Your task to perform on an android device: turn off notifications in google photos Image 0: 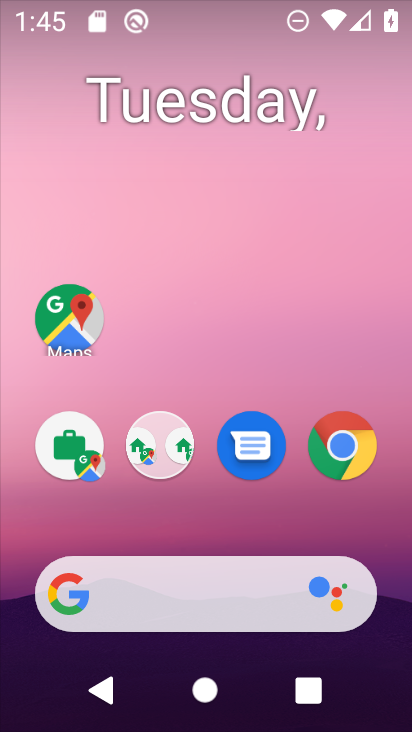
Step 0: drag from (251, 563) to (278, 206)
Your task to perform on an android device: turn off notifications in google photos Image 1: 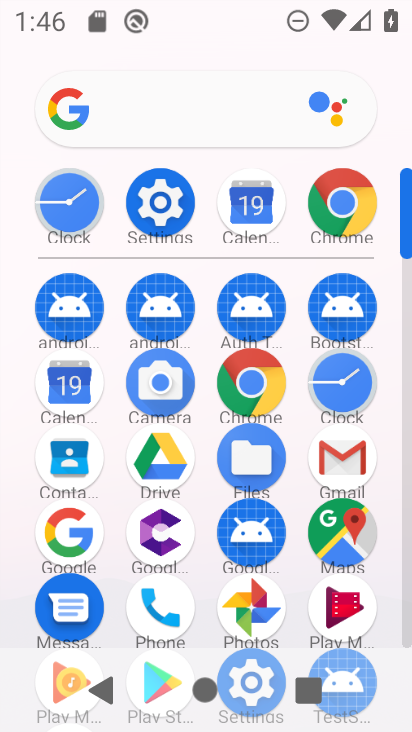
Step 1: click (250, 601)
Your task to perform on an android device: turn off notifications in google photos Image 2: 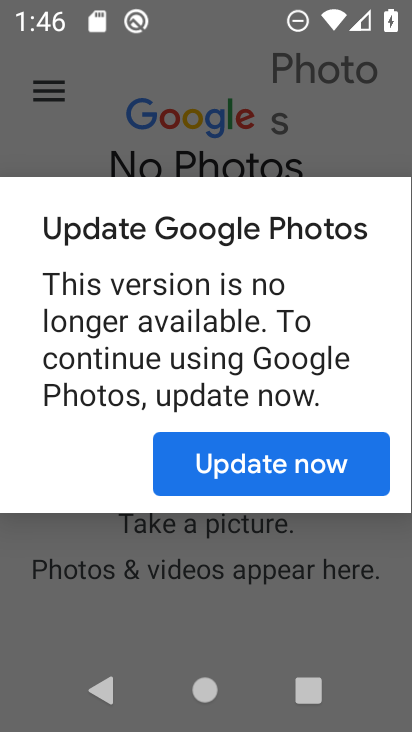
Step 2: click (281, 482)
Your task to perform on an android device: turn off notifications in google photos Image 3: 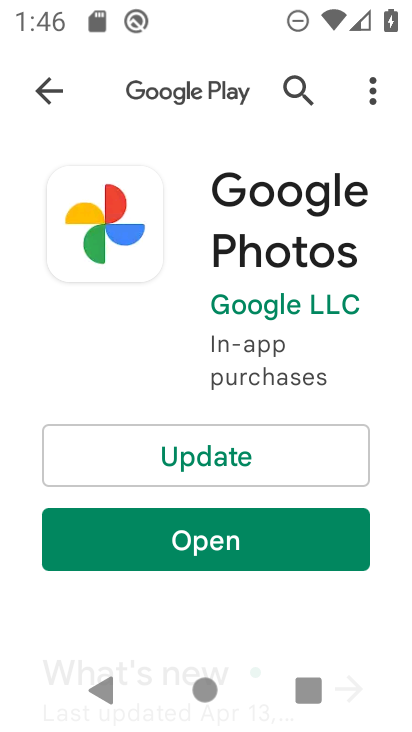
Step 3: click (243, 458)
Your task to perform on an android device: turn off notifications in google photos Image 4: 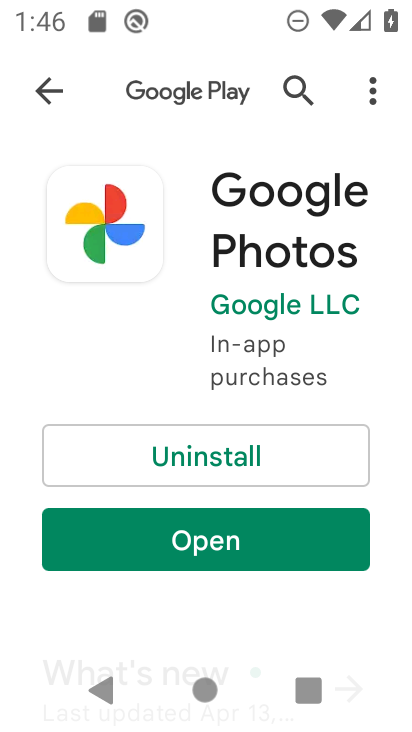
Step 4: click (227, 545)
Your task to perform on an android device: turn off notifications in google photos Image 5: 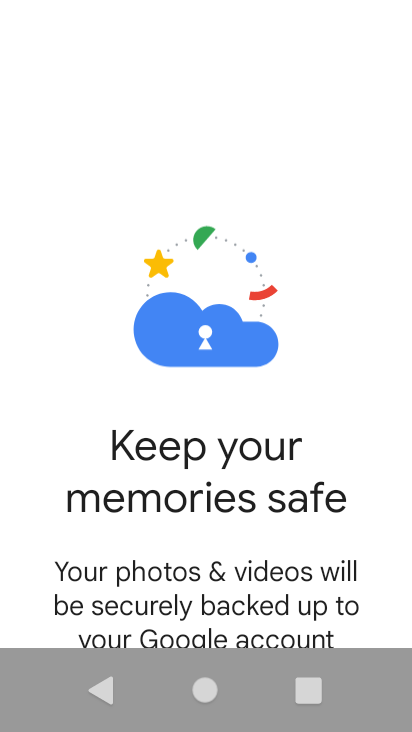
Step 5: drag from (173, 599) to (210, 270)
Your task to perform on an android device: turn off notifications in google photos Image 6: 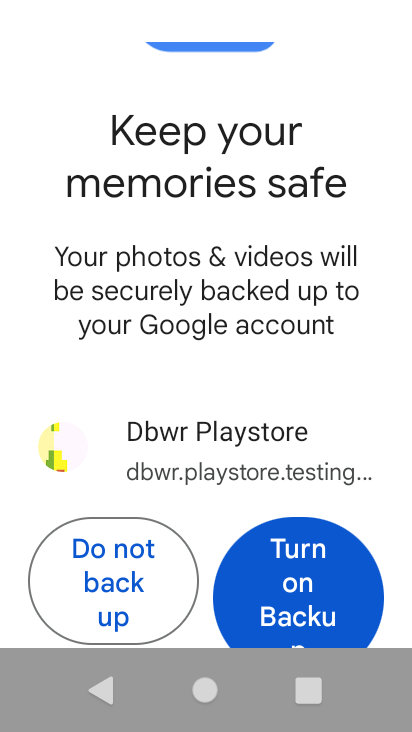
Step 6: drag from (243, 541) to (264, 267)
Your task to perform on an android device: turn off notifications in google photos Image 7: 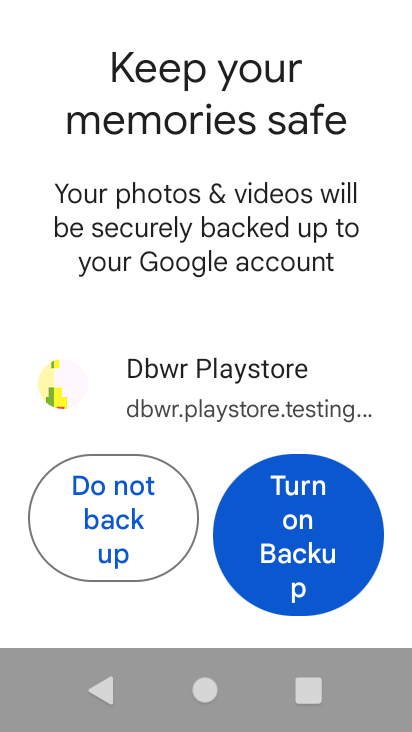
Step 7: press back button
Your task to perform on an android device: turn off notifications in google photos Image 8: 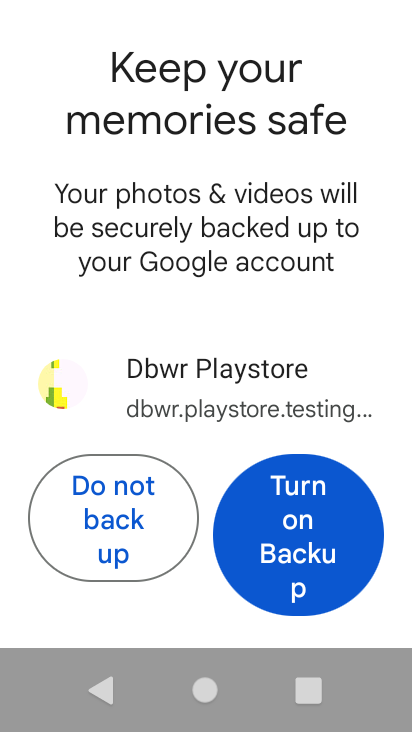
Step 8: click (169, 534)
Your task to perform on an android device: turn off notifications in google photos Image 9: 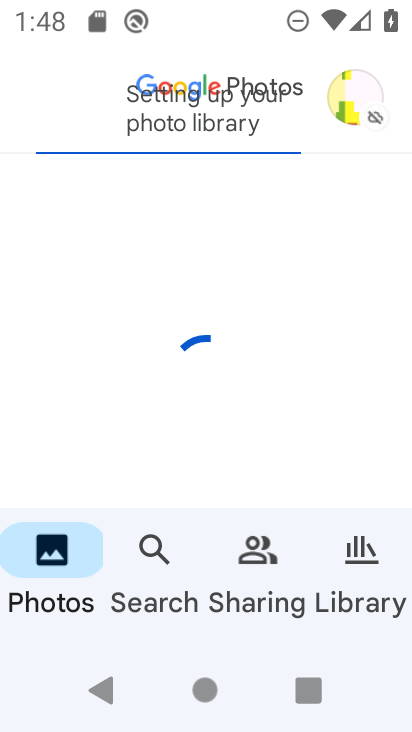
Step 9: click (356, 103)
Your task to perform on an android device: turn off notifications in google photos Image 10: 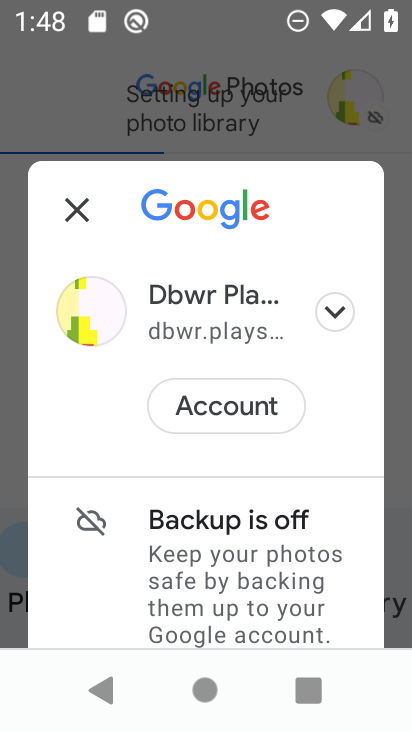
Step 10: drag from (234, 529) to (260, 182)
Your task to perform on an android device: turn off notifications in google photos Image 11: 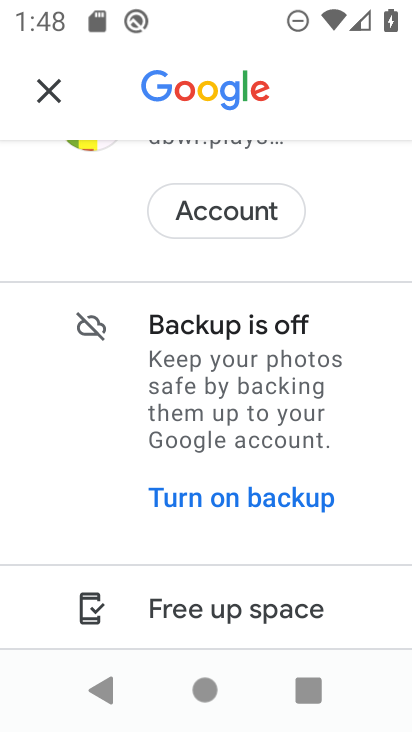
Step 11: drag from (235, 487) to (248, 211)
Your task to perform on an android device: turn off notifications in google photos Image 12: 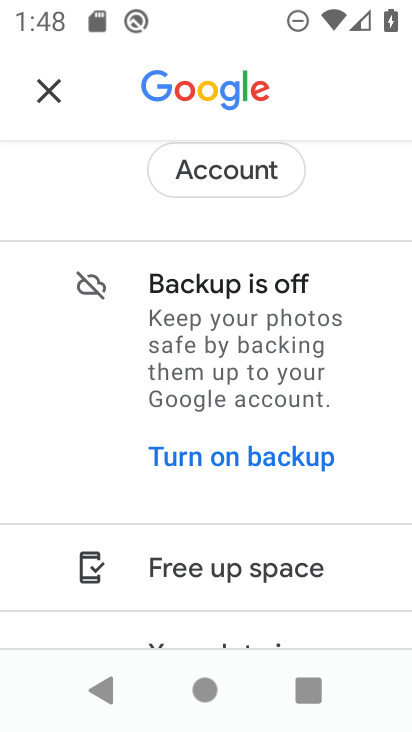
Step 12: drag from (244, 546) to (270, 194)
Your task to perform on an android device: turn off notifications in google photos Image 13: 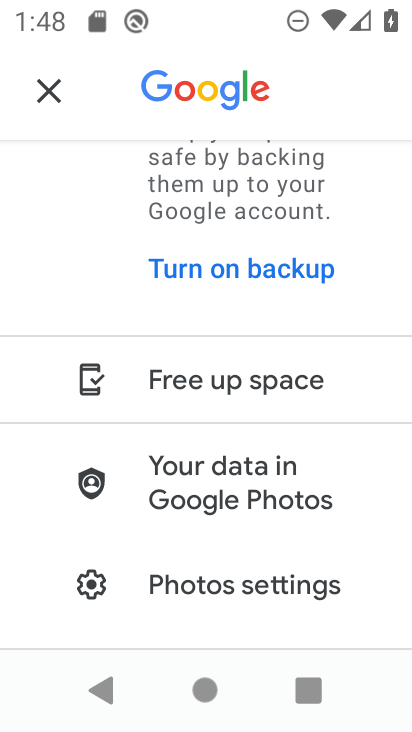
Step 13: click (215, 585)
Your task to perform on an android device: turn off notifications in google photos Image 14: 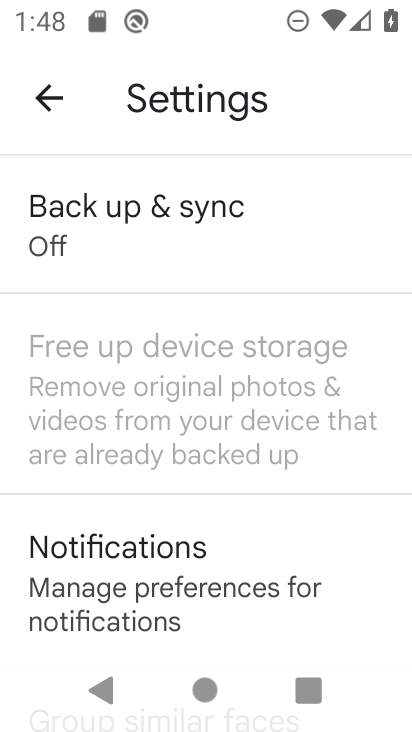
Step 14: click (203, 578)
Your task to perform on an android device: turn off notifications in google photos Image 15: 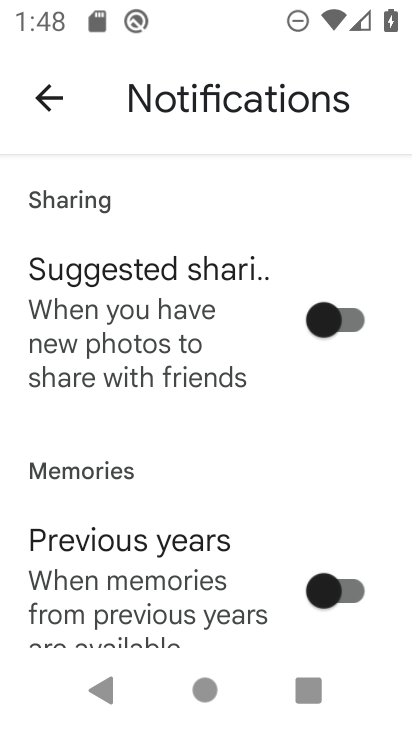
Step 15: drag from (234, 515) to (241, 184)
Your task to perform on an android device: turn off notifications in google photos Image 16: 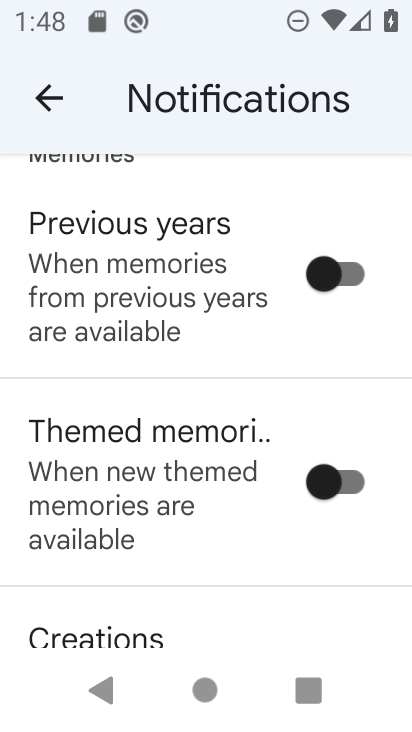
Step 16: drag from (190, 546) to (219, 247)
Your task to perform on an android device: turn off notifications in google photos Image 17: 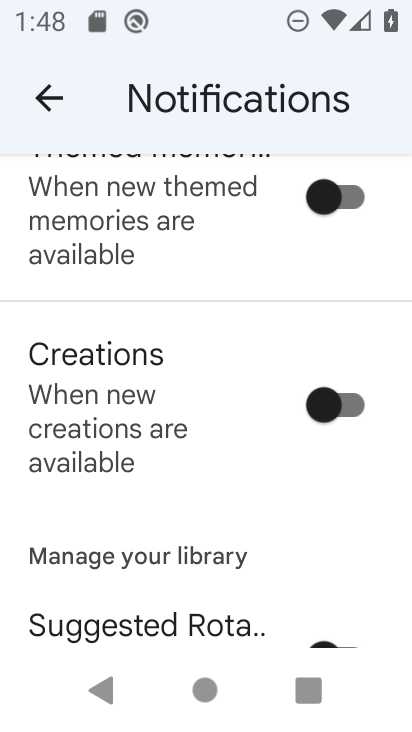
Step 17: drag from (175, 531) to (213, 268)
Your task to perform on an android device: turn off notifications in google photos Image 18: 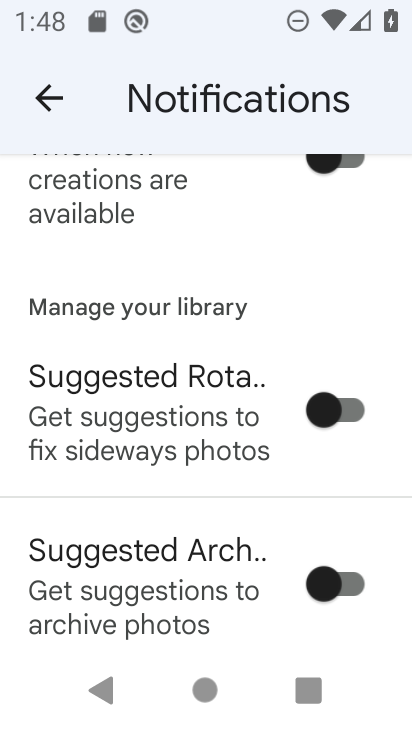
Step 18: drag from (172, 534) to (191, 237)
Your task to perform on an android device: turn off notifications in google photos Image 19: 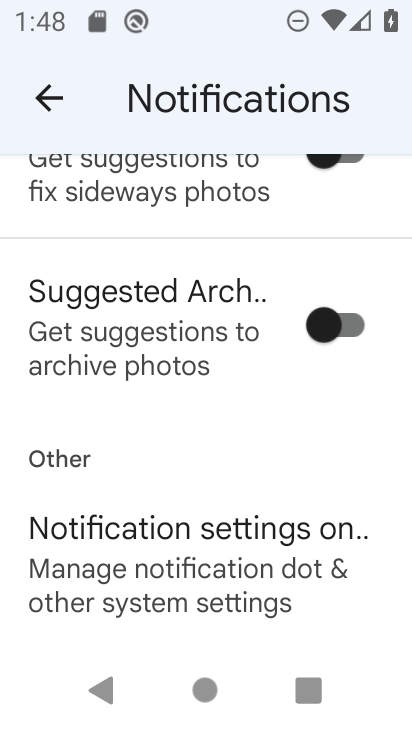
Step 19: click (185, 551)
Your task to perform on an android device: turn off notifications in google photos Image 20: 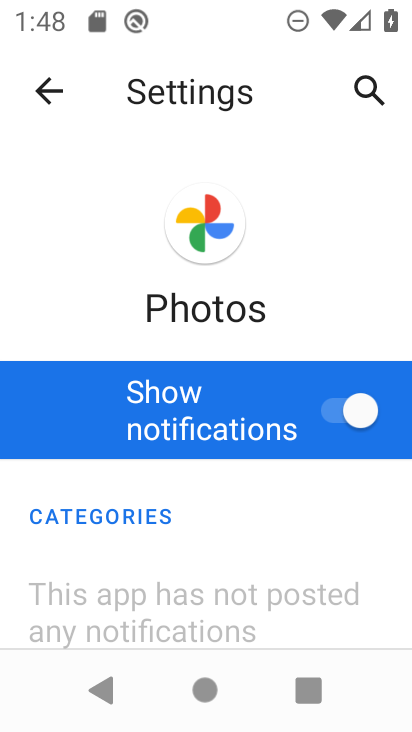
Step 20: click (368, 428)
Your task to perform on an android device: turn off notifications in google photos Image 21: 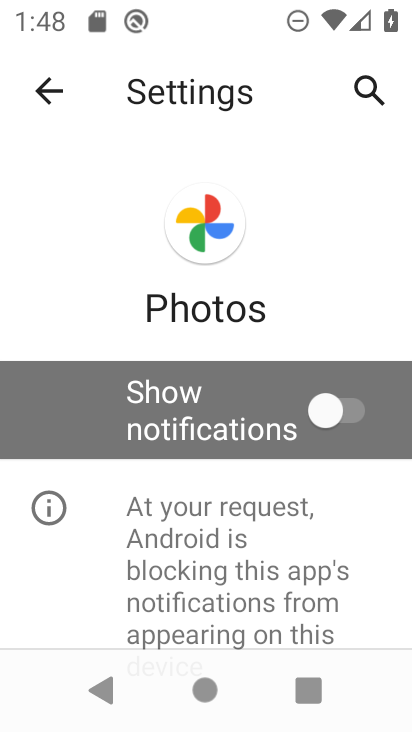
Step 21: task complete